Your task to perform on an android device: Open CNN.com Image 0: 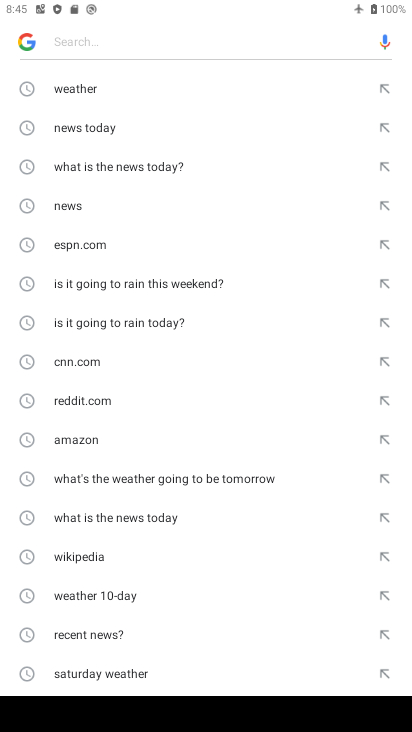
Step 0: click (117, 351)
Your task to perform on an android device: Open CNN.com Image 1: 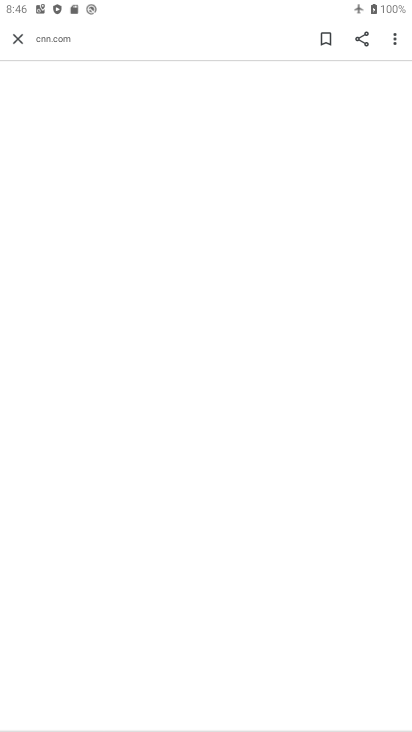
Step 1: task complete